Your task to perform on an android device: install app "WhatsApp Messenger" Image 0: 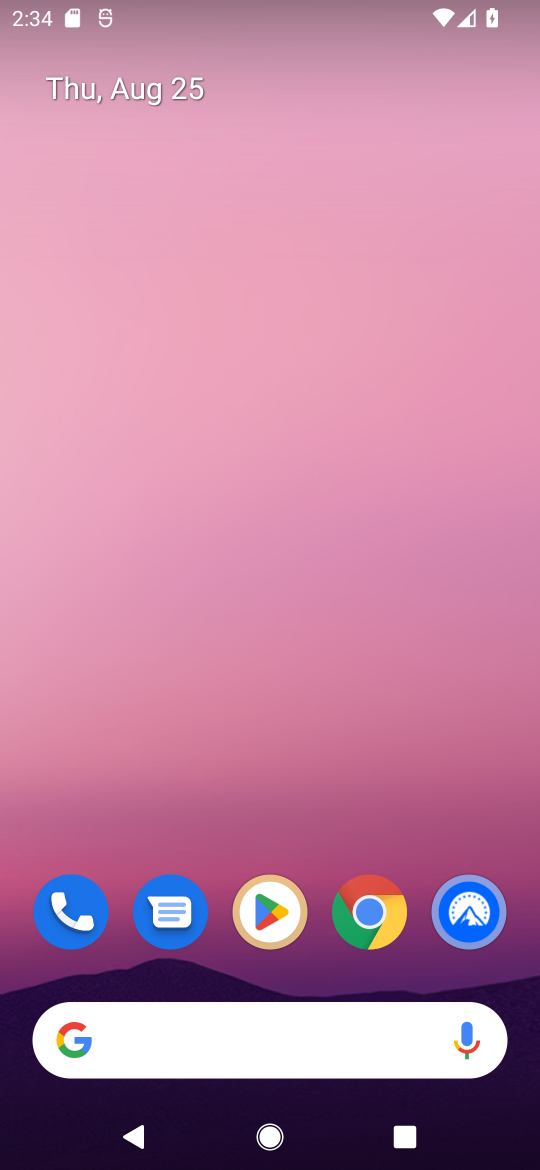
Step 0: drag from (309, 964) to (309, 646)
Your task to perform on an android device: install app "WhatsApp Messenger" Image 1: 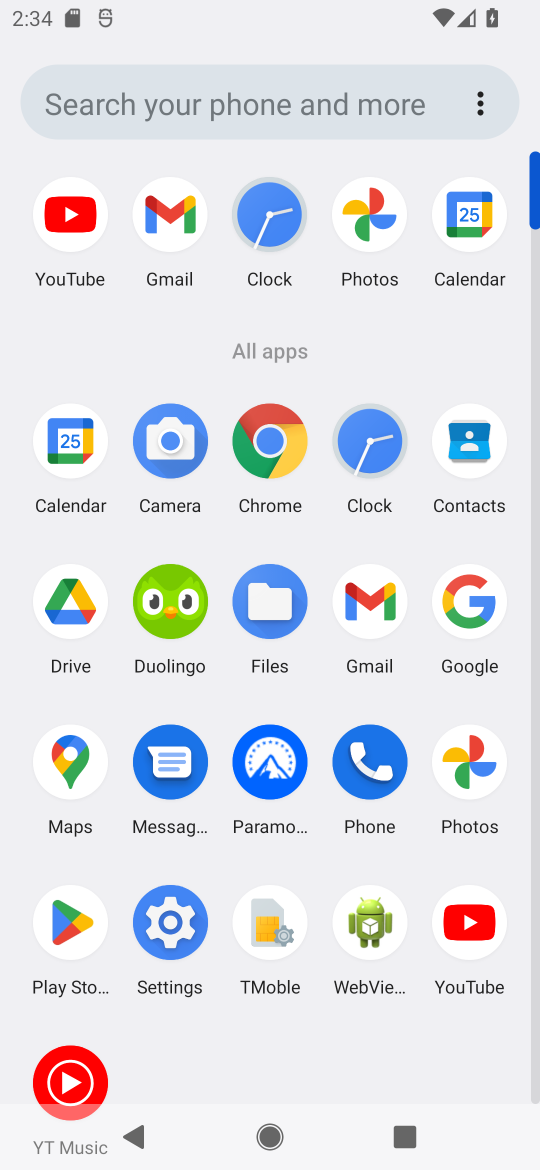
Step 1: click (56, 892)
Your task to perform on an android device: install app "WhatsApp Messenger" Image 2: 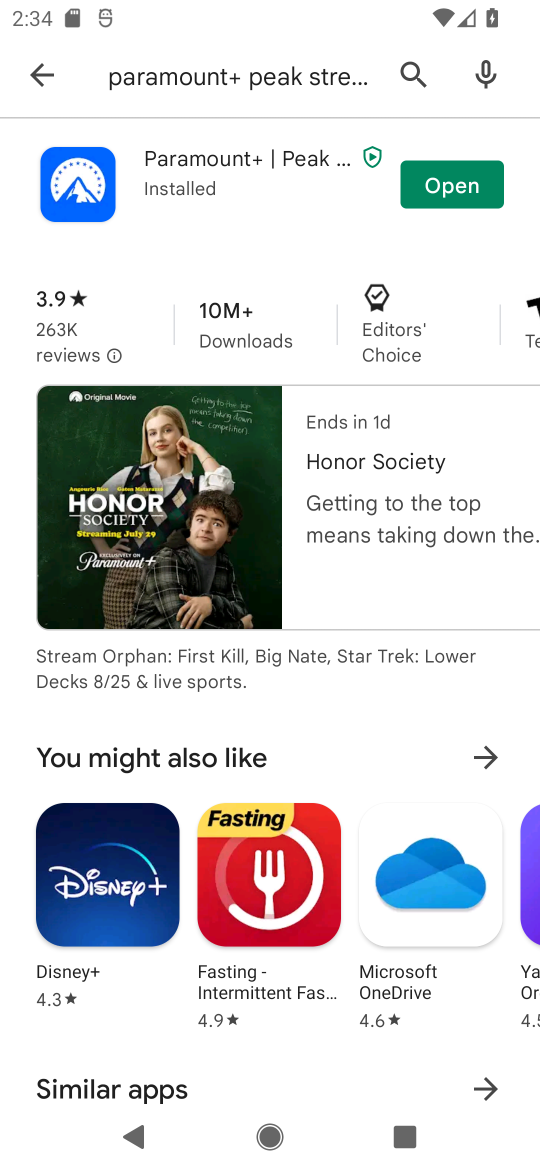
Step 2: click (405, 85)
Your task to perform on an android device: install app "WhatsApp Messenger" Image 3: 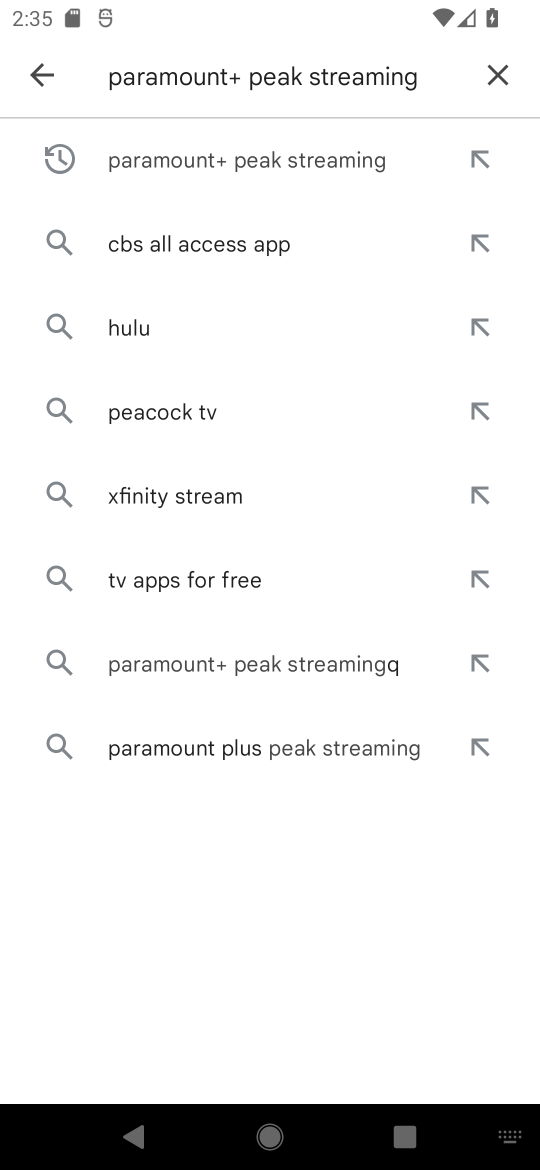
Step 3: click (498, 65)
Your task to perform on an android device: install app "WhatsApp Messenger" Image 4: 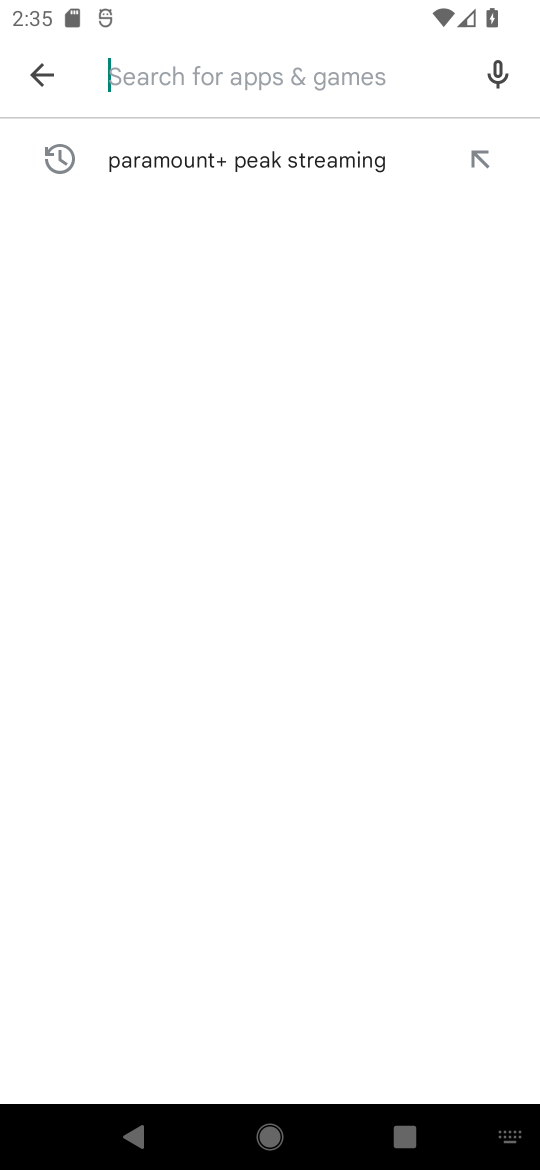
Step 4: type "WhatsApp Messenger"
Your task to perform on an android device: install app "WhatsApp Messenger" Image 5: 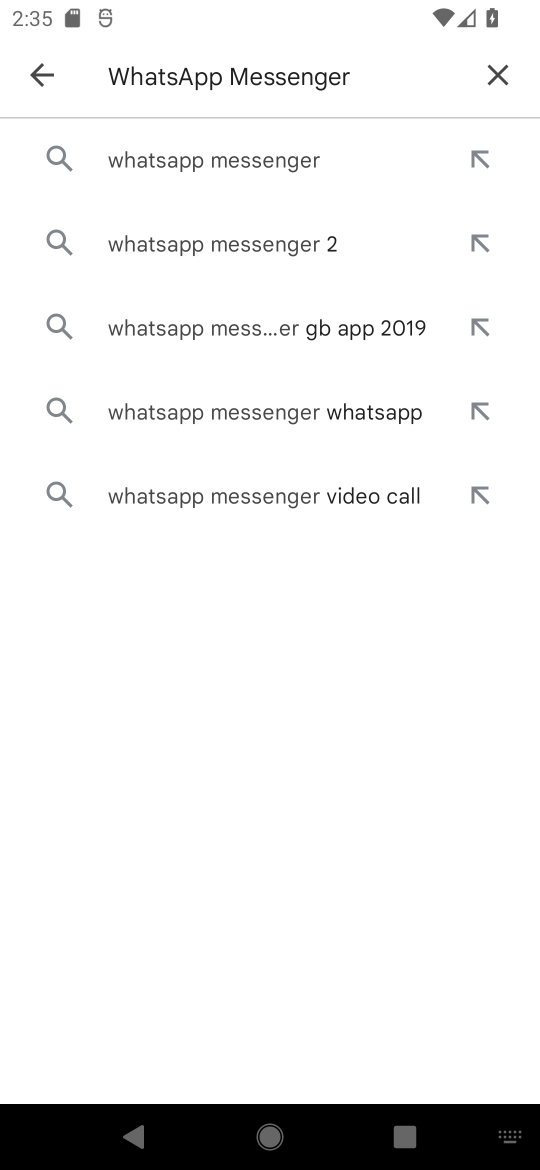
Step 5: click (142, 163)
Your task to perform on an android device: install app "WhatsApp Messenger" Image 6: 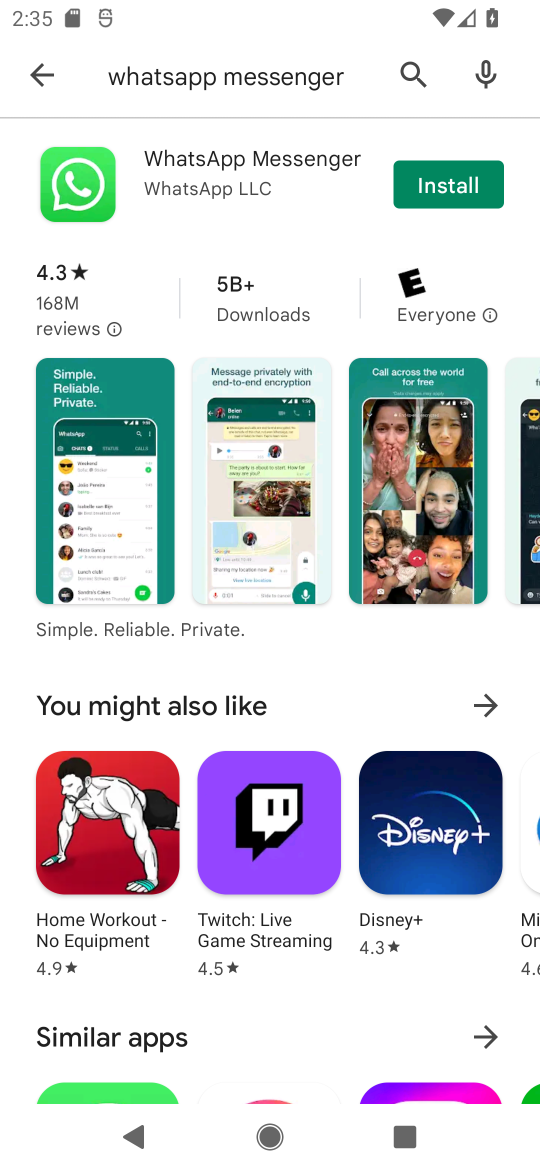
Step 6: click (443, 194)
Your task to perform on an android device: install app "WhatsApp Messenger" Image 7: 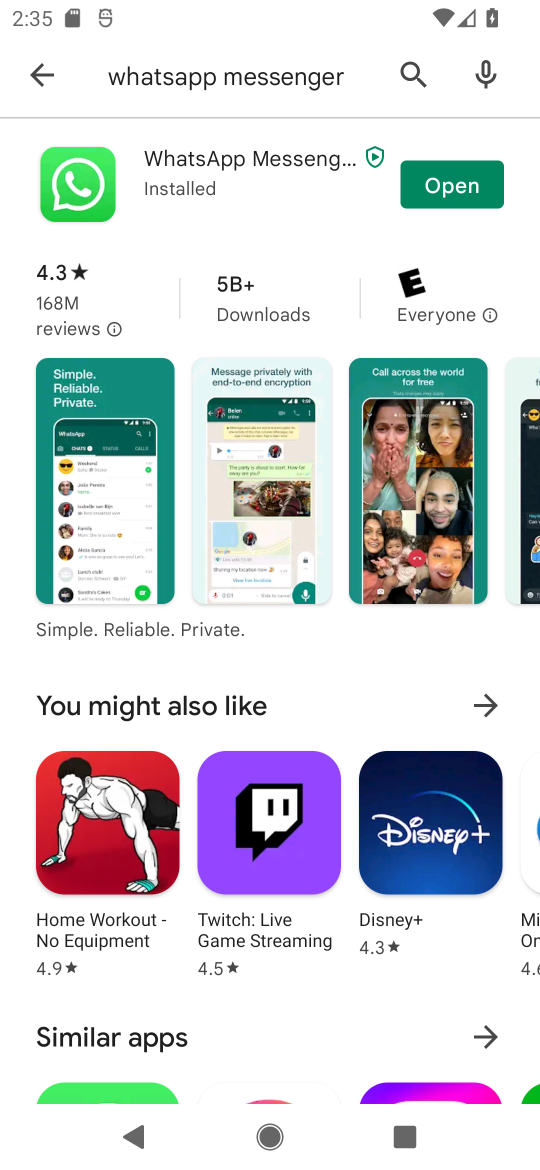
Step 7: click (472, 185)
Your task to perform on an android device: install app "WhatsApp Messenger" Image 8: 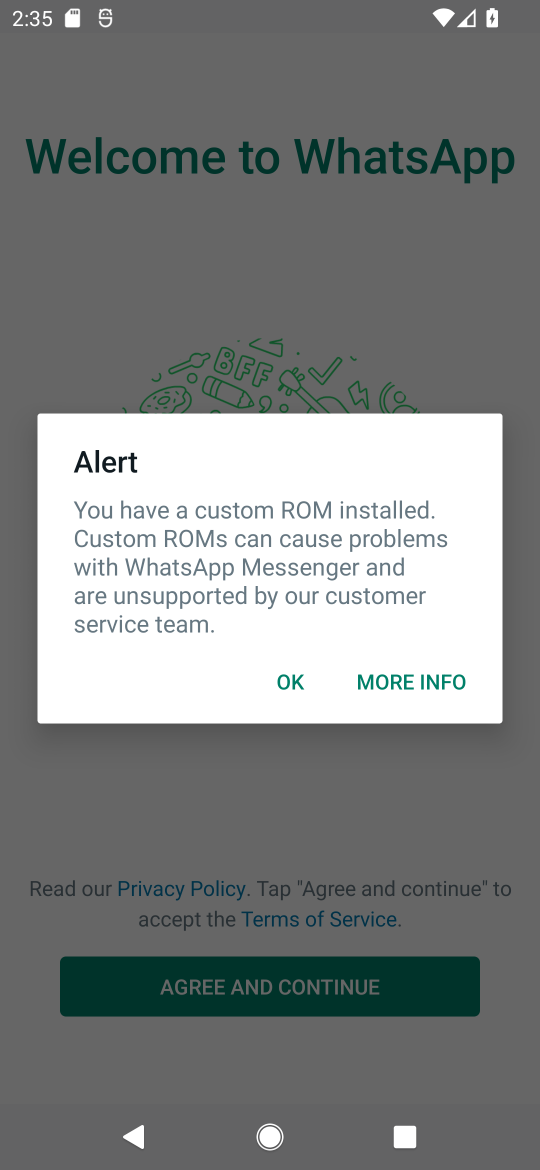
Step 8: task complete